Your task to perform on an android device: Open calendar and show me the second week of next month Image 0: 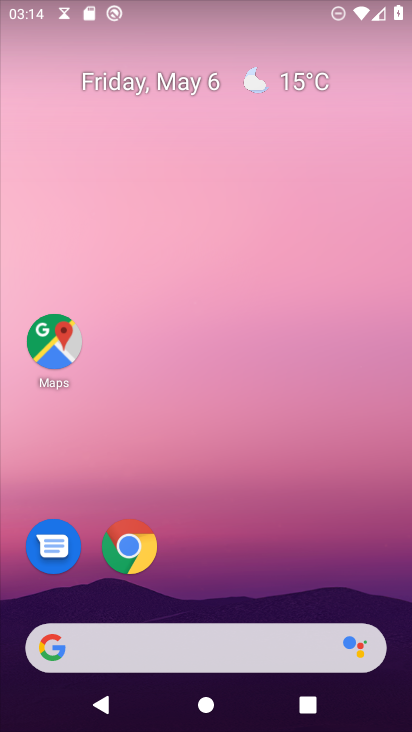
Step 0: click (135, 74)
Your task to perform on an android device: Open calendar and show me the second week of next month Image 1: 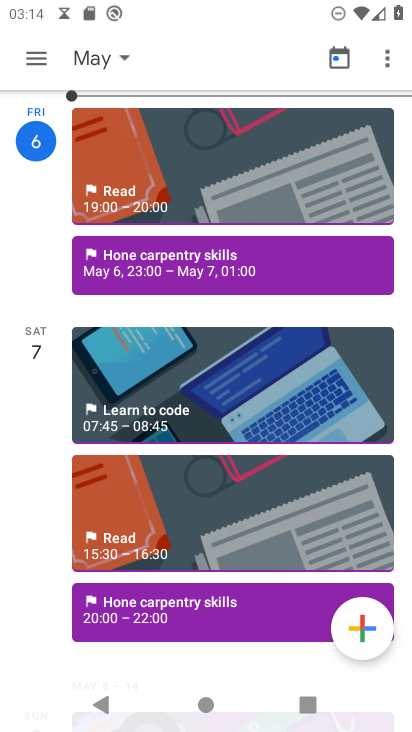
Step 1: click (103, 61)
Your task to perform on an android device: Open calendar and show me the second week of next month Image 2: 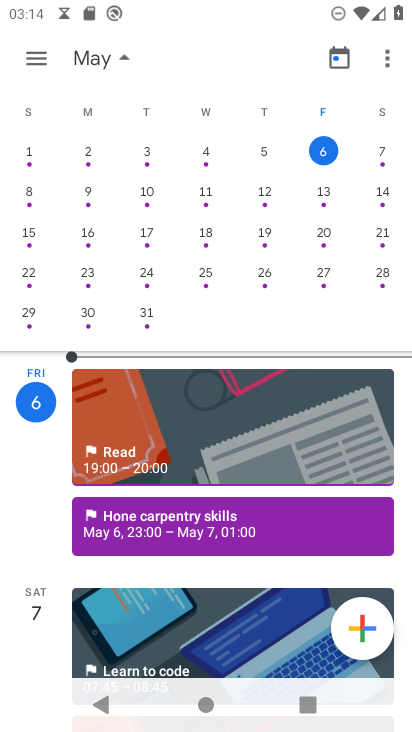
Step 2: drag from (352, 244) to (0, 222)
Your task to perform on an android device: Open calendar and show me the second week of next month Image 3: 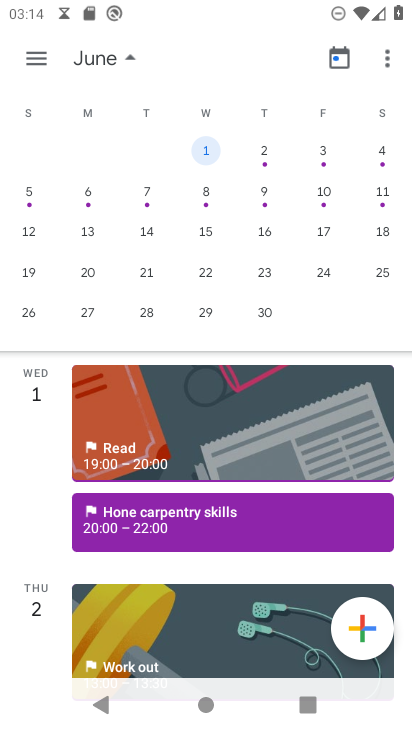
Step 3: click (89, 191)
Your task to perform on an android device: Open calendar and show me the second week of next month Image 4: 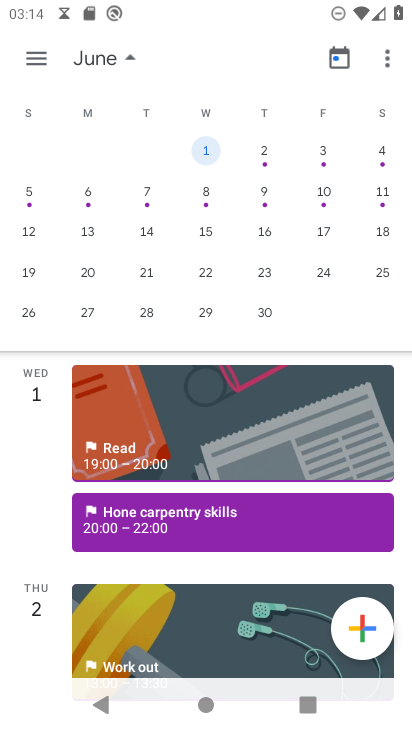
Step 4: click (40, 60)
Your task to perform on an android device: Open calendar and show me the second week of next month Image 5: 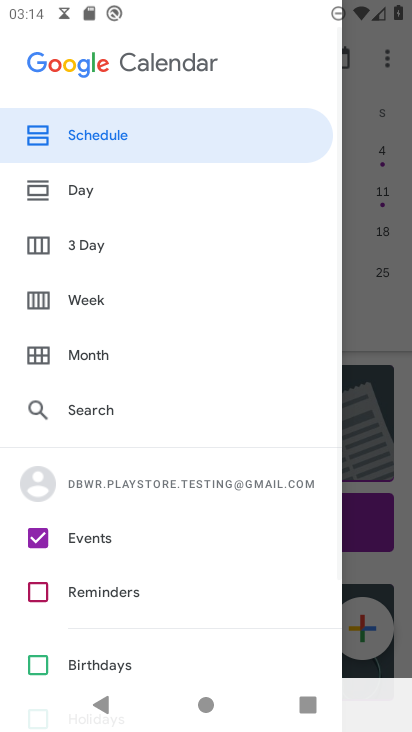
Step 5: click (101, 305)
Your task to perform on an android device: Open calendar and show me the second week of next month Image 6: 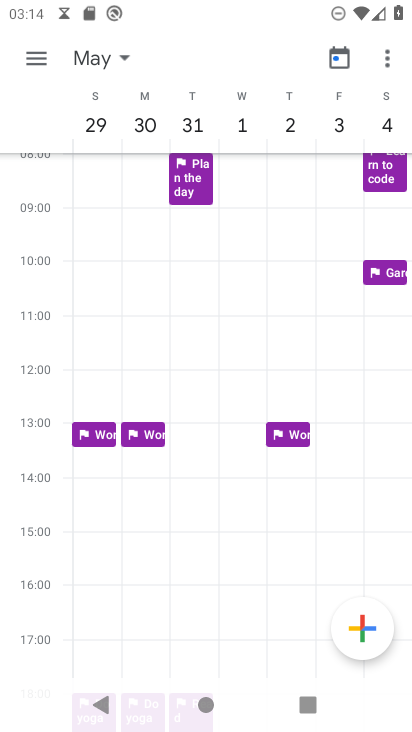
Step 6: click (110, 60)
Your task to perform on an android device: Open calendar and show me the second week of next month Image 7: 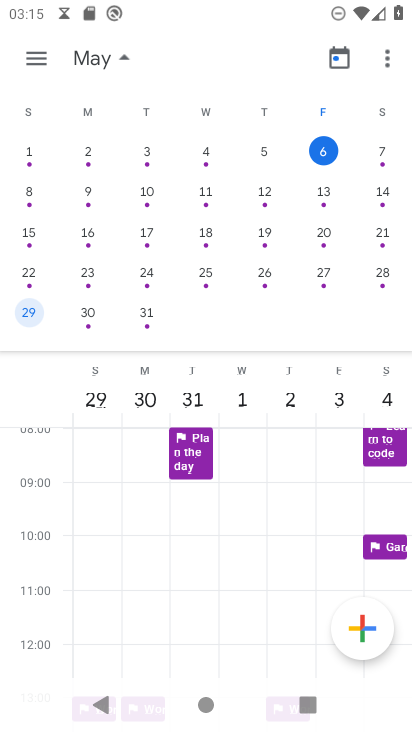
Step 7: drag from (347, 266) to (8, 246)
Your task to perform on an android device: Open calendar and show me the second week of next month Image 8: 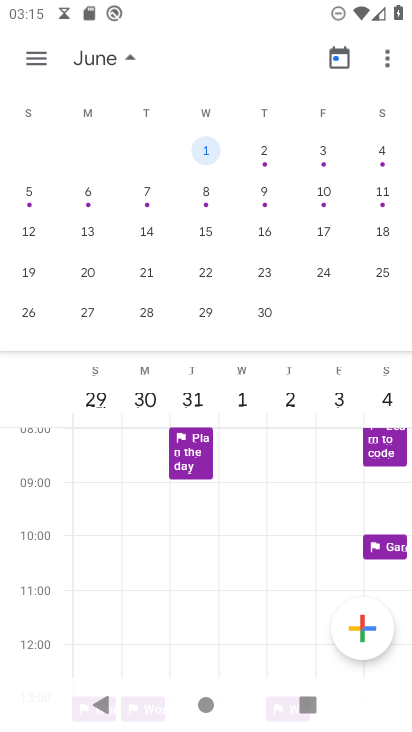
Step 8: click (24, 196)
Your task to perform on an android device: Open calendar and show me the second week of next month Image 9: 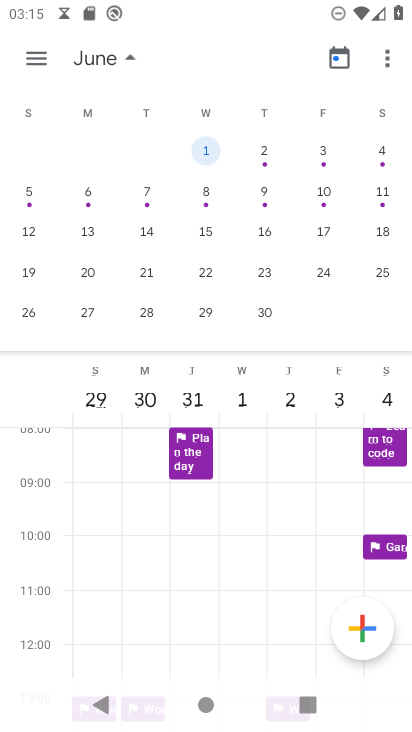
Step 9: click (87, 197)
Your task to perform on an android device: Open calendar and show me the second week of next month Image 10: 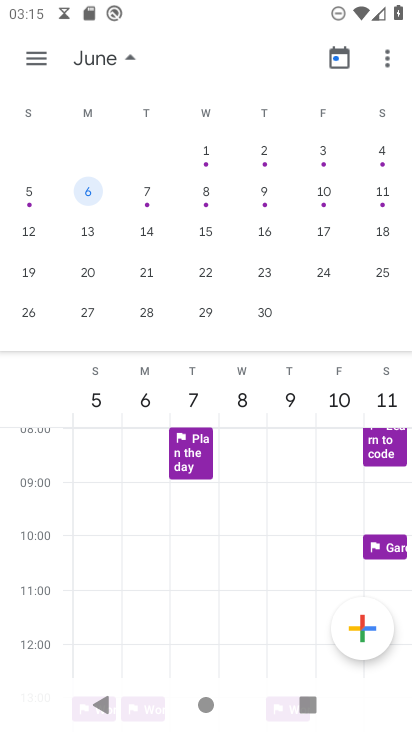
Step 10: task complete